Your task to perform on an android device: Open Chrome and go to the settings page Image 0: 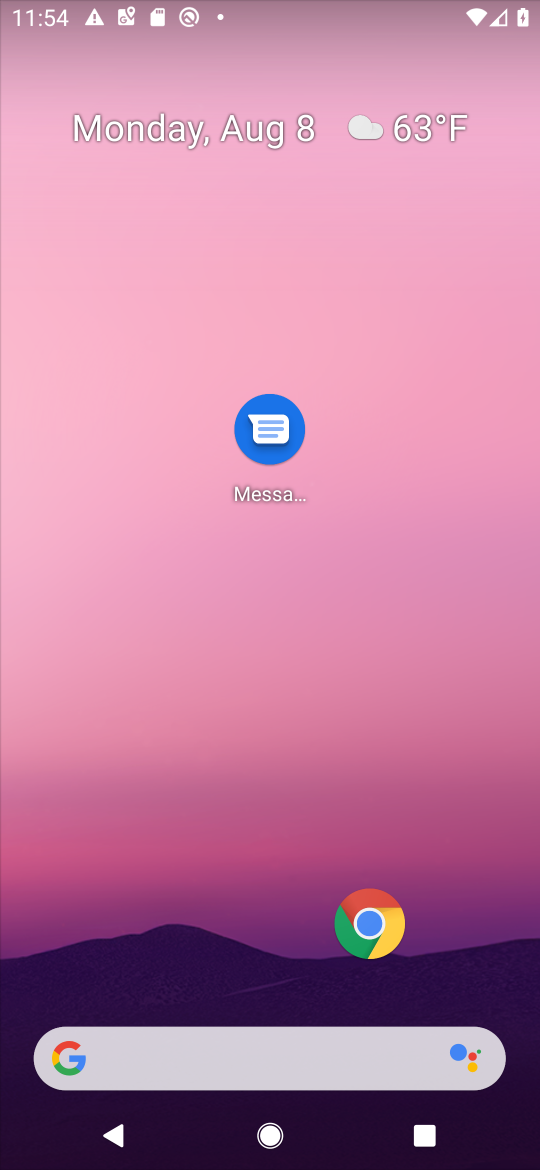
Step 0: click (343, 922)
Your task to perform on an android device: Open Chrome and go to the settings page Image 1: 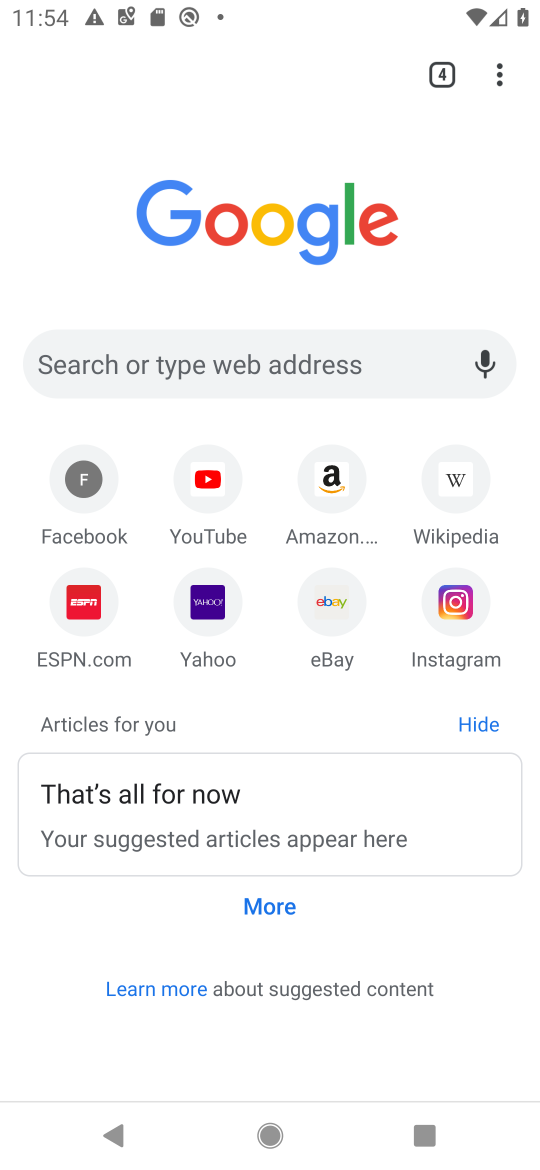
Step 1: click (502, 66)
Your task to perform on an android device: Open Chrome and go to the settings page Image 2: 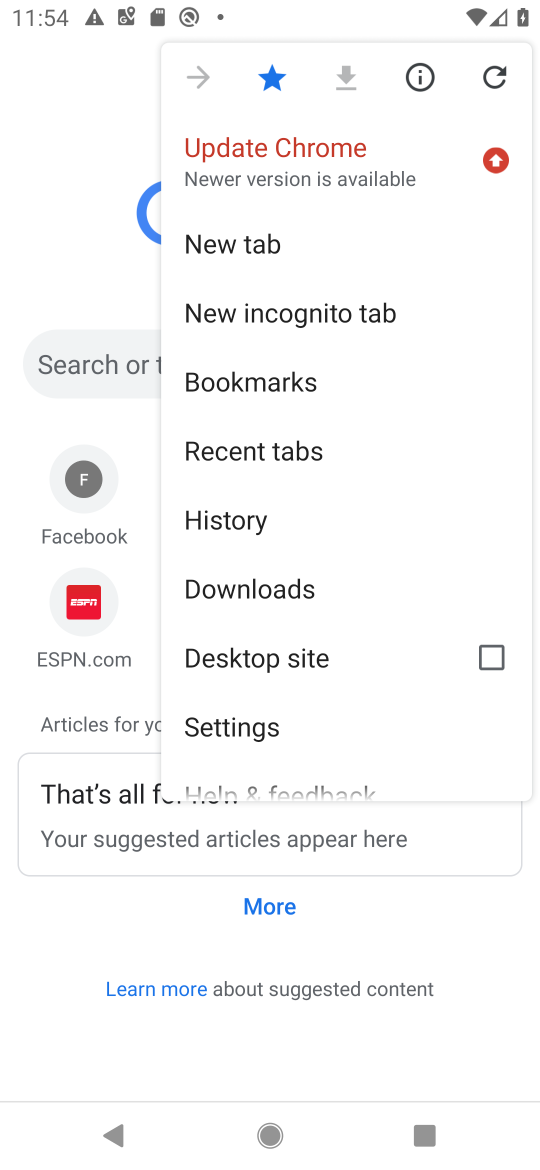
Step 2: click (230, 716)
Your task to perform on an android device: Open Chrome and go to the settings page Image 3: 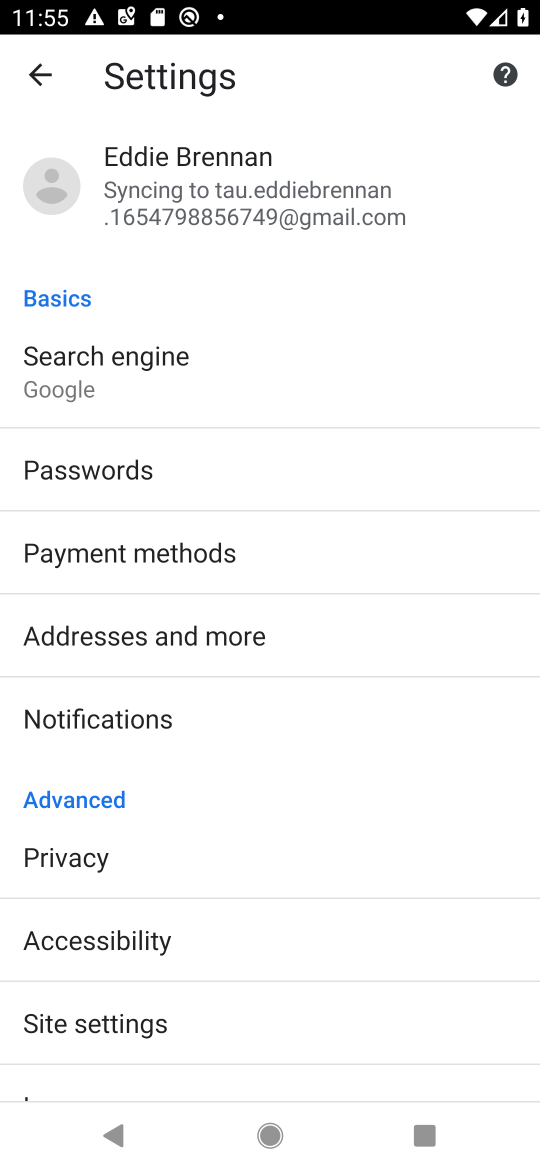
Step 3: task complete